Your task to perform on an android device: View the shopping cart on walmart. Image 0: 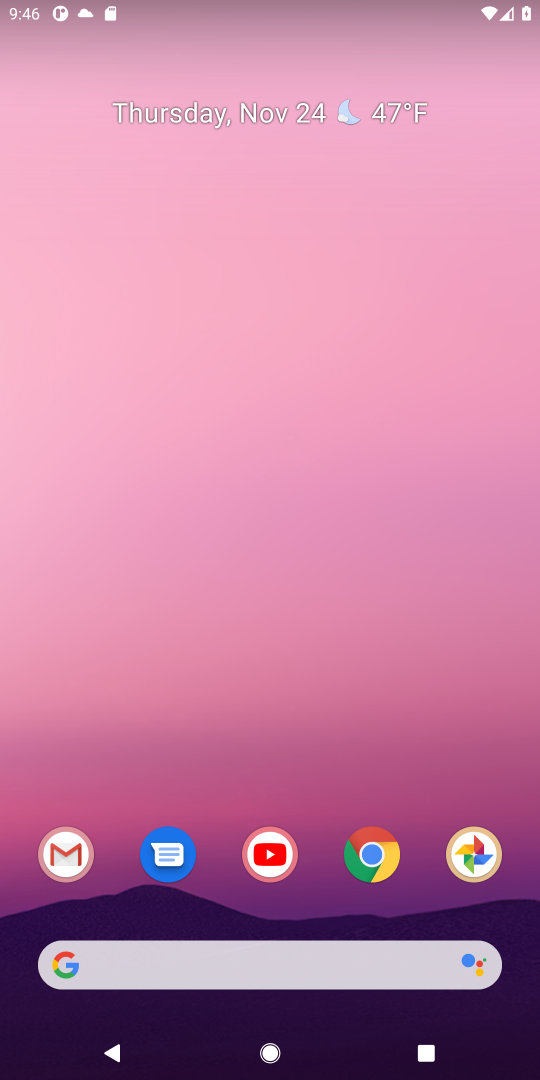
Step 0: click (375, 873)
Your task to perform on an android device: View the shopping cart on walmart. Image 1: 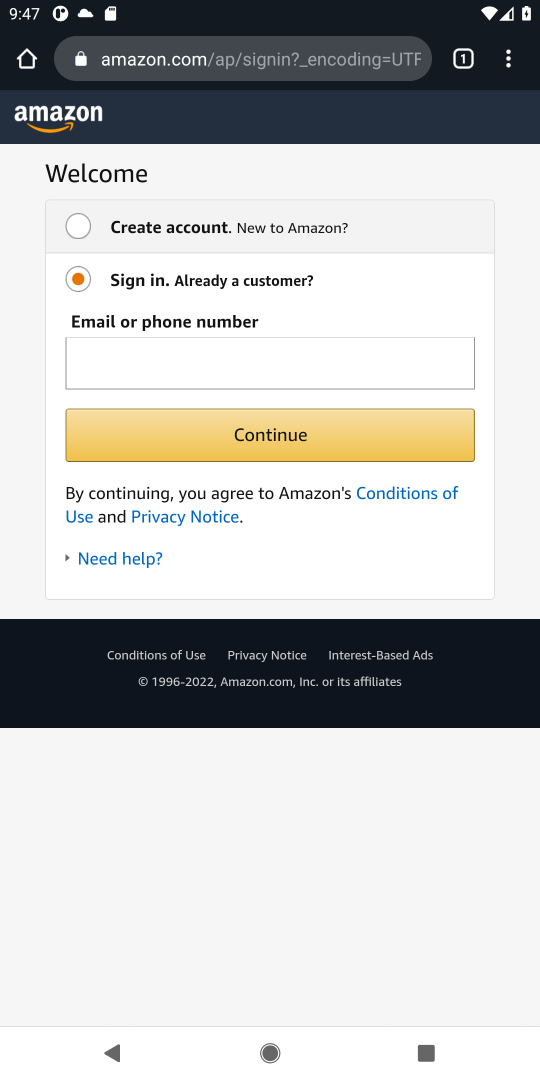
Step 1: click (200, 61)
Your task to perform on an android device: View the shopping cart on walmart. Image 2: 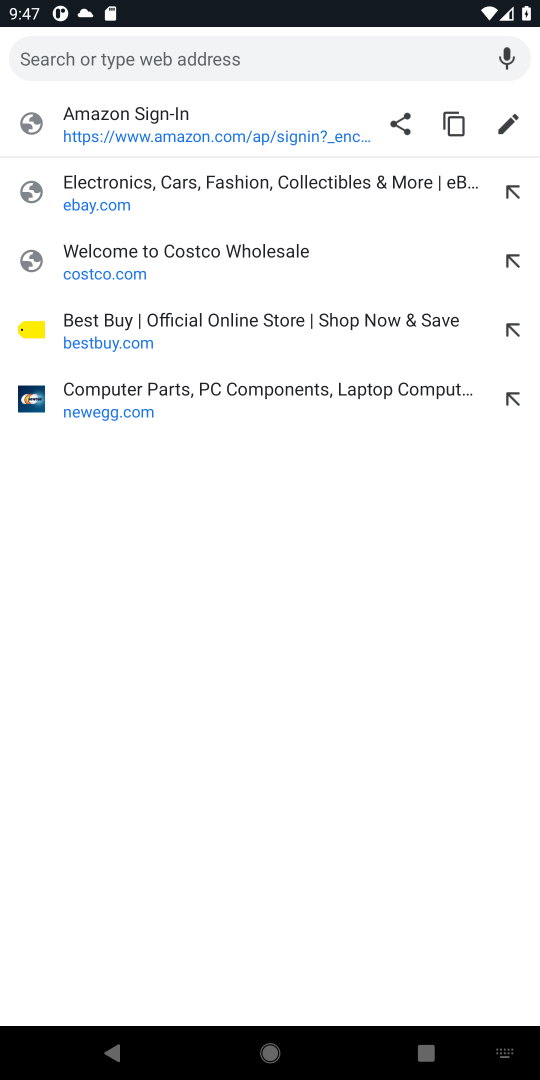
Step 2: type "walmart.com"
Your task to perform on an android device: View the shopping cart on walmart. Image 3: 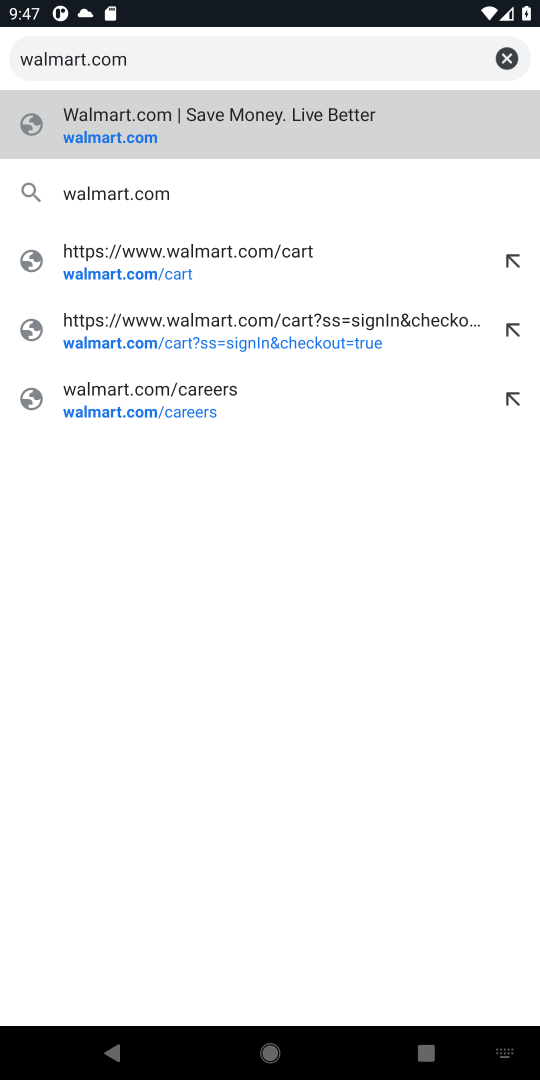
Step 3: click (116, 123)
Your task to perform on an android device: View the shopping cart on walmart. Image 4: 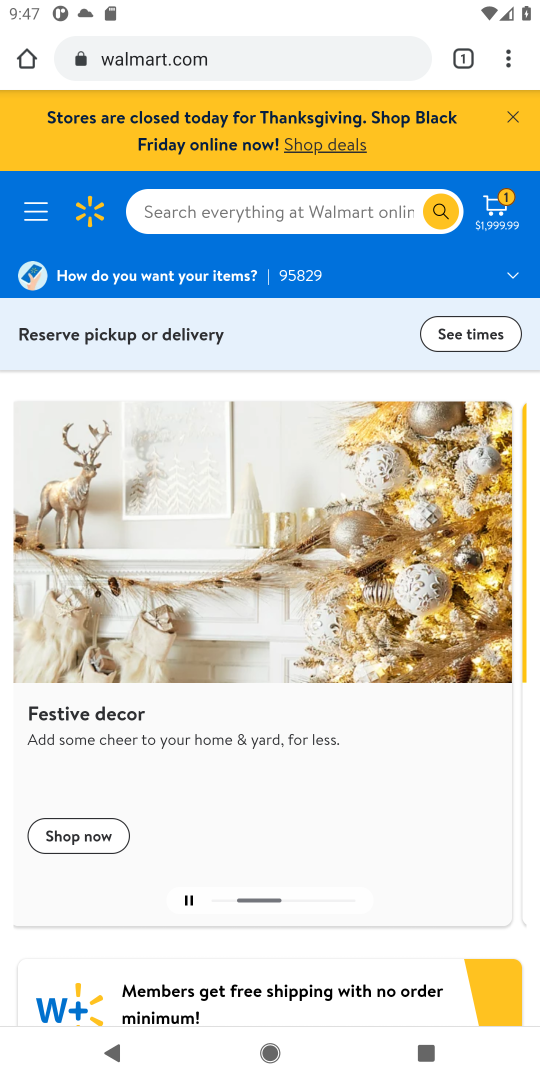
Step 4: click (500, 216)
Your task to perform on an android device: View the shopping cart on walmart. Image 5: 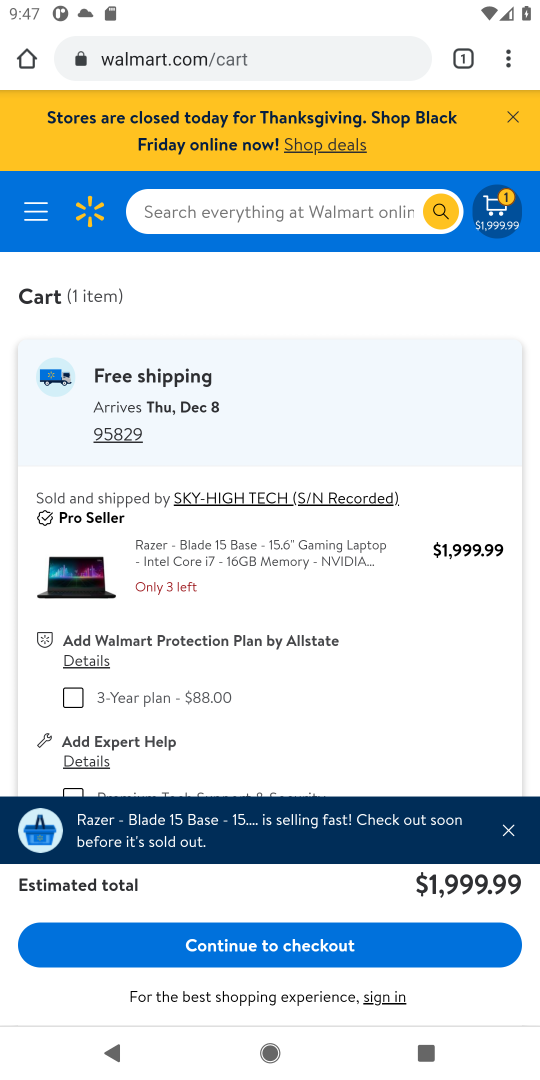
Step 5: task complete